Your task to perform on an android device: Open the map Image 0: 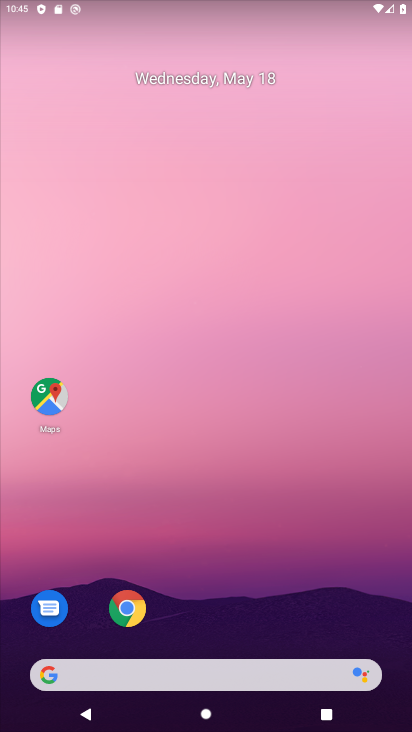
Step 0: press home button
Your task to perform on an android device: Open the map Image 1: 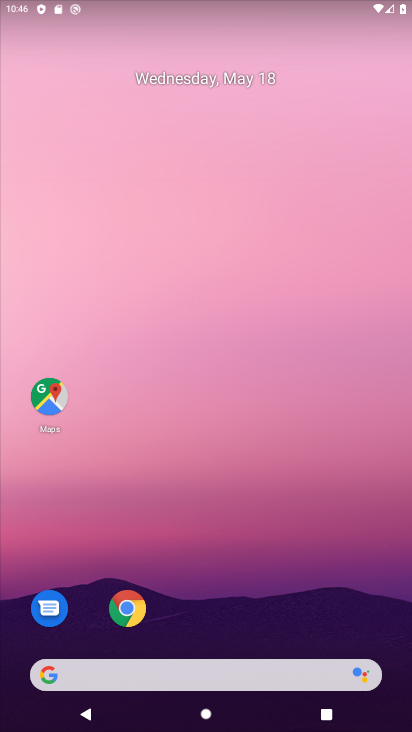
Step 1: click (34, 384)
Your task to perform on an android device: Open the map Image 2: 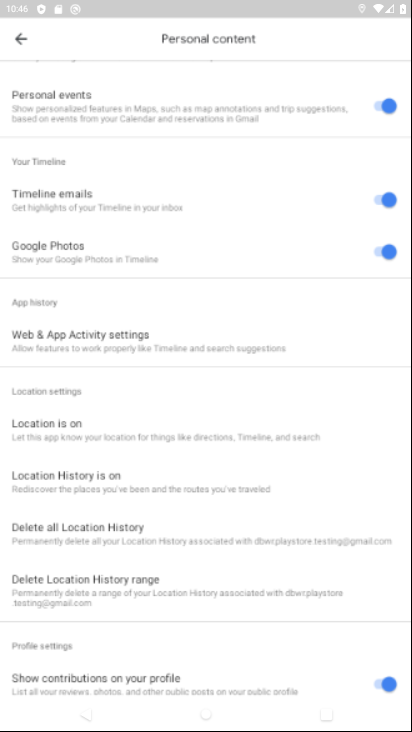
Step 2: task complete